Your task to perform on an android device: open the mobile data screen to see how much data has been used Image 0: 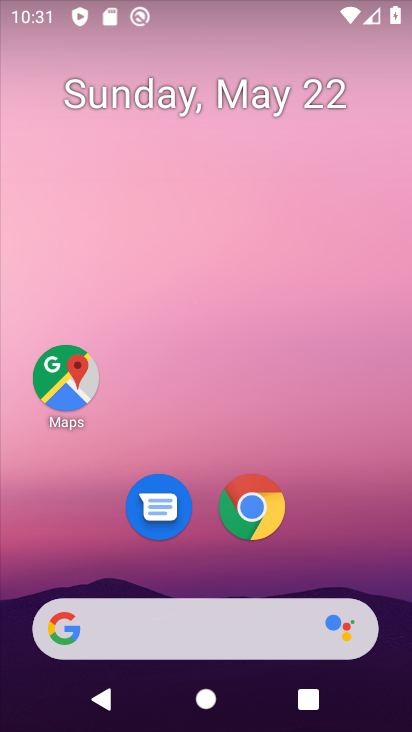
Step 0: drag from (365, 582) to (284, 50)
Your task to perform on an android device: open the mobile data screen to see how much data has been used Image 1: 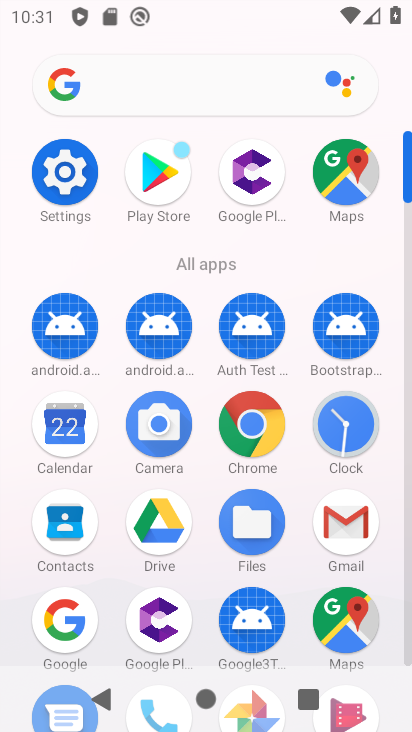
Step 1: click (84, 167)
Your task to perform on an android device: open the mobile data screen to see how much data has been used Image 2: 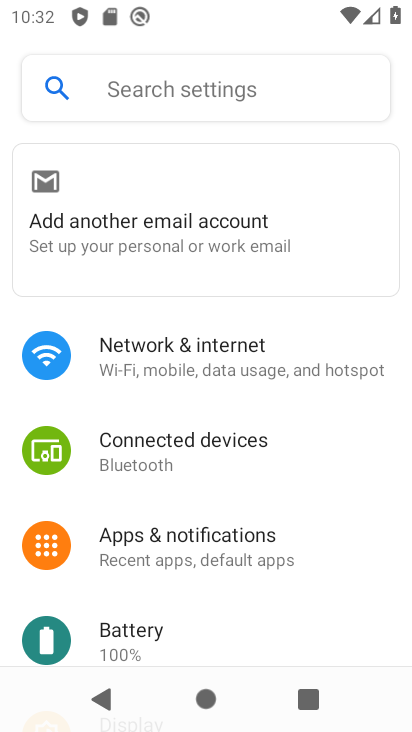
Step 2: click (158, 383)
Your task to perform on an android device: open the mobile data screen to see how much data has been used Image 3: 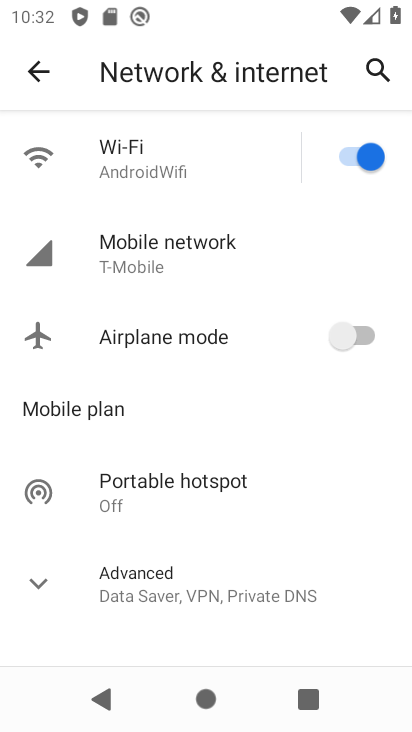
Step 3: click (179, 242)
Your task to perform on an android device: open the mobile data screen to see how much data has been used Image 4: 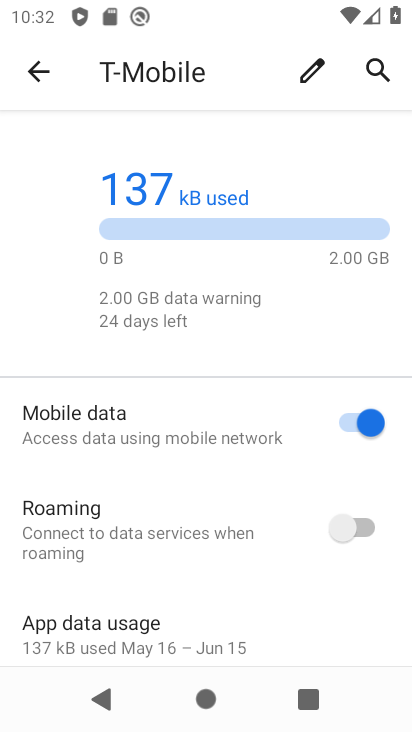
Step 4: task complete